Your task to perform on an android device: turn off smart reply in the gmail app Image 0: 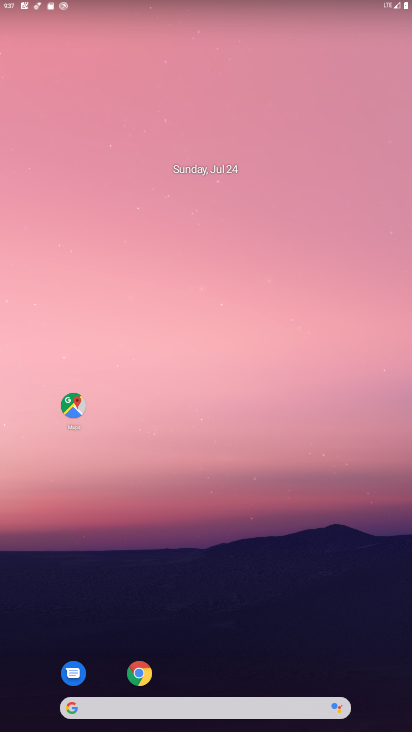
Step 0: drag from (211, 659) to (208, 2)
Your task to perform on an android device: turn off smart reply in the gmail app Image 1: 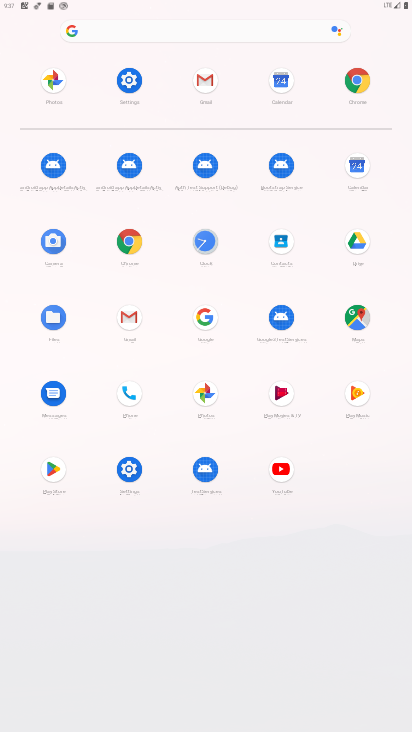
Step 1: click (135, 325)
Your task to perform on an android device: turn off smart reply in the gmail app Image 2: 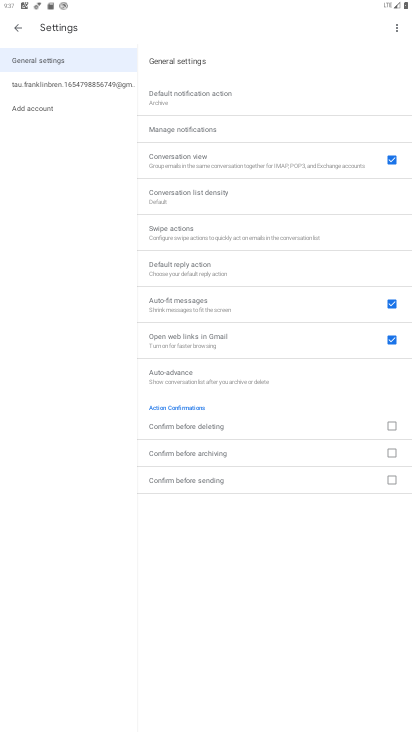
Step 2: click (84, 83)
Your task to perform on an android device: turn off smart reply in the gmail app Image 3: 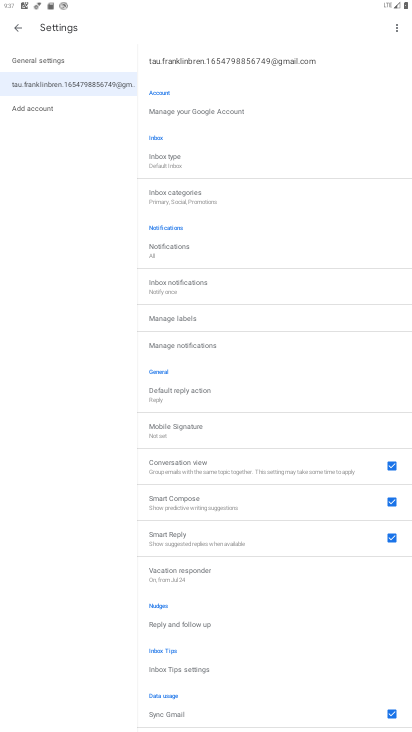
Step 3: click (355, 550)
Your task to perform on an android device: turn off smart reply in the gmail app Image 4: 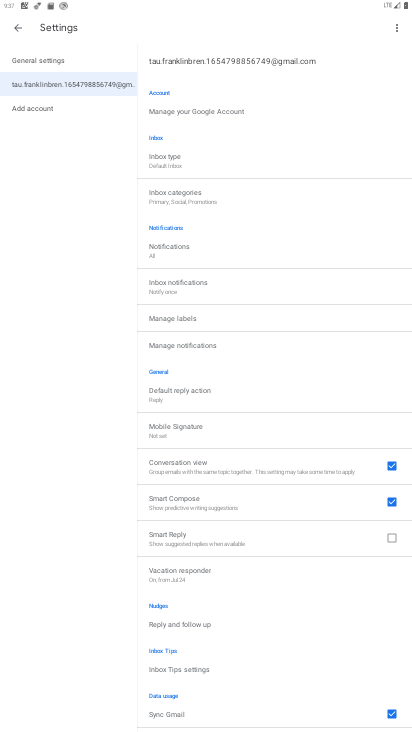
Step 4: task complete